Your task to perform on an android device: Open Google Image 0: 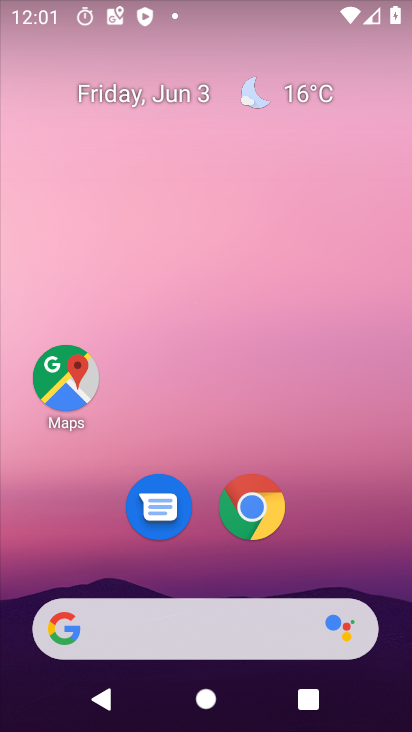
Step 0: drag from (392, 617) to (271, 132)
Your task to perform on an android device: Open Google Image 1: 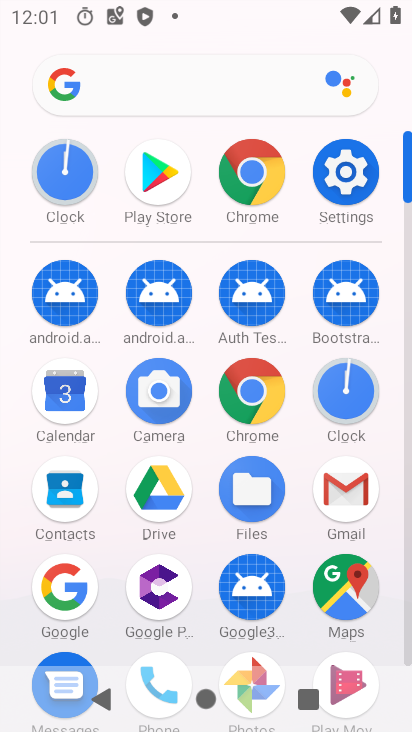
Step 1: click (49, 599)
Your task to perform on an android device: Open Google Image 2: 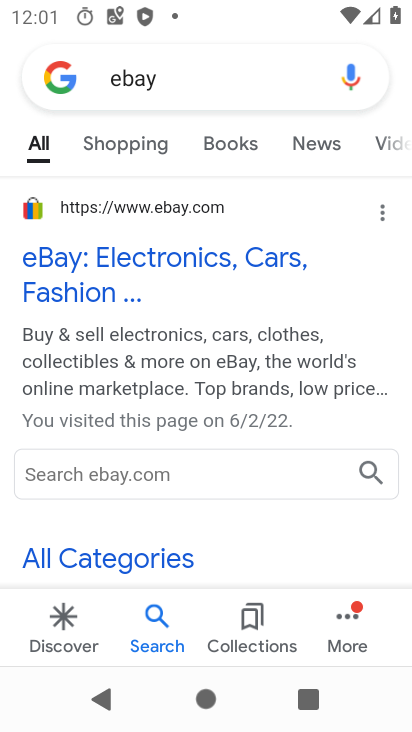
Step 2: task complete